Your task to perform on an android device: Show the shopping cart on newegg. Search for "logitech g903" on newegg, select the first entry, and add it to the cart. Image 0: 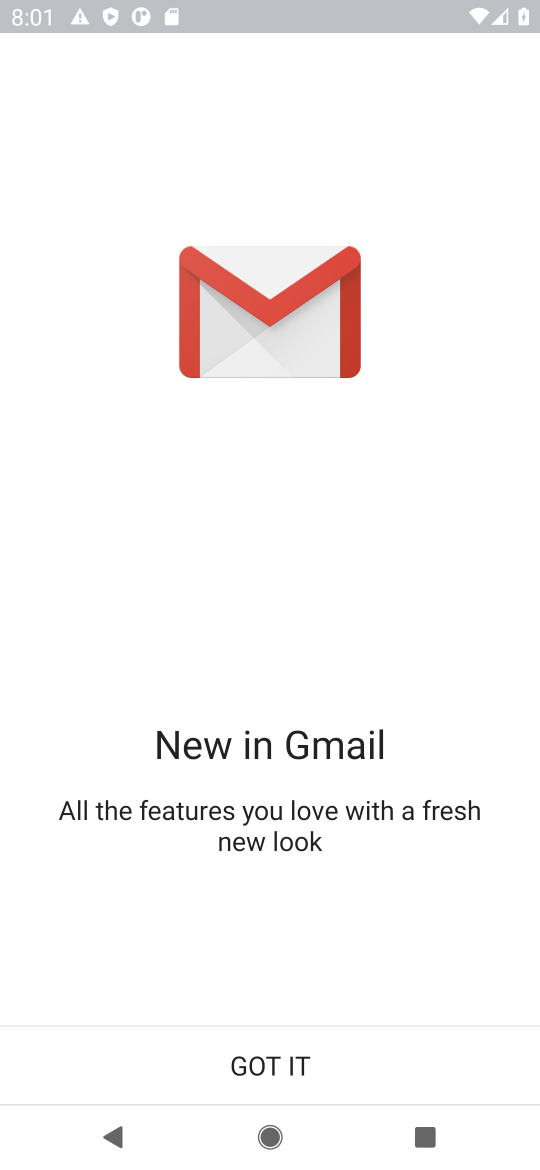
Step 0: press home button
Your task to perform on an android device: Show the shopping cart on newegg. Search for "logitech g903" on newegg, select the first entry, and add it to the cart. Image 1: 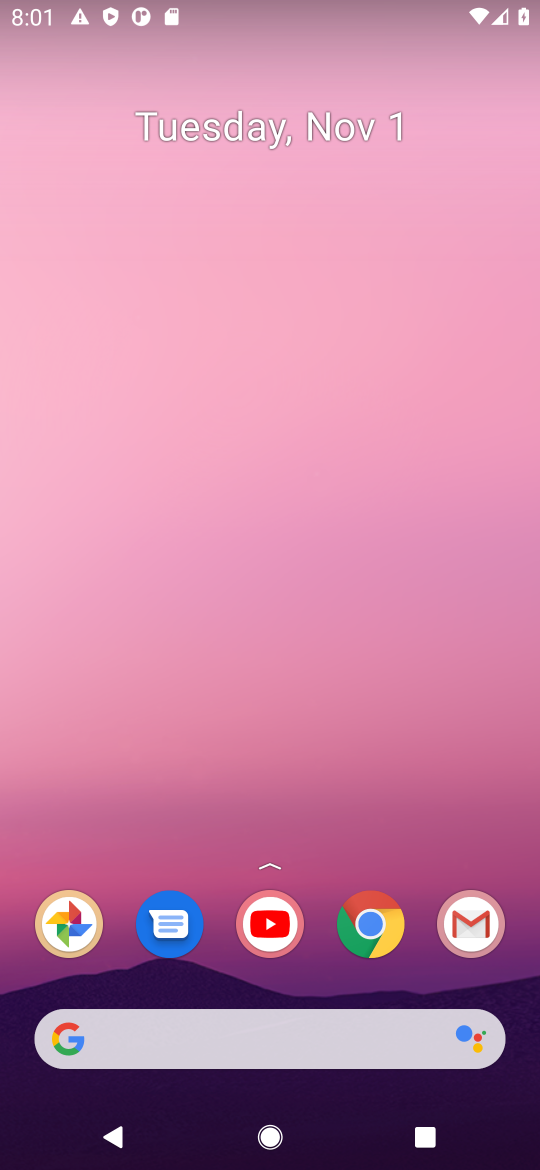
Step 1: click (109, 1036)
Your task to perform on an android device: Show the shopping cart on newegg. Search for "logitech g903" on newegg, select the first entry, and add it to the cart. Image 2: 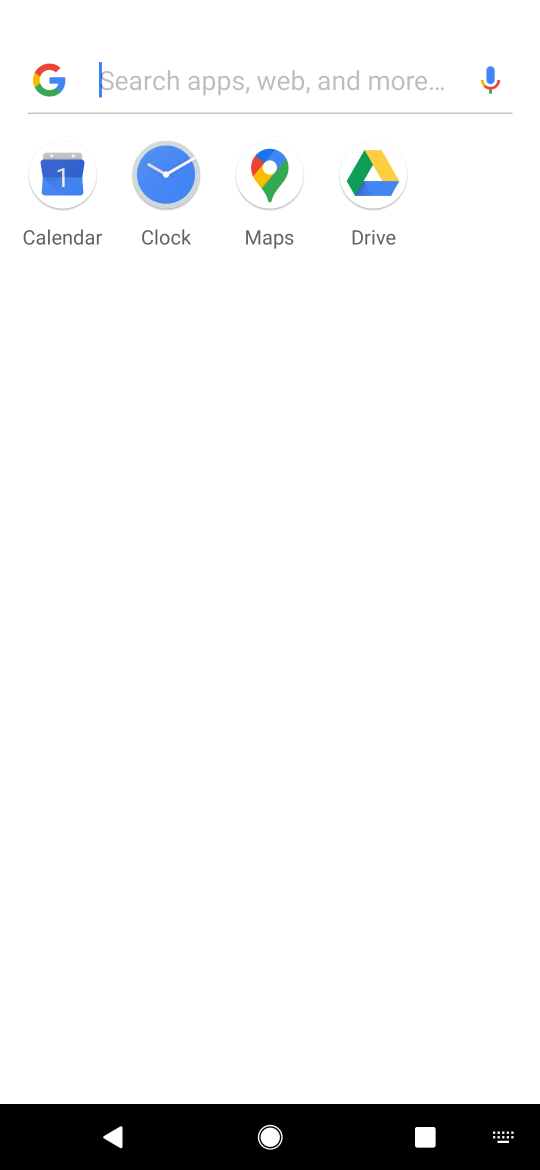
Step 2: type "newegg"
Your task to perform on an android device: Show the shopping cart on newegg. Search for "logitech g903" on newegg, select the first entry, and add it to the cart. Image 3: 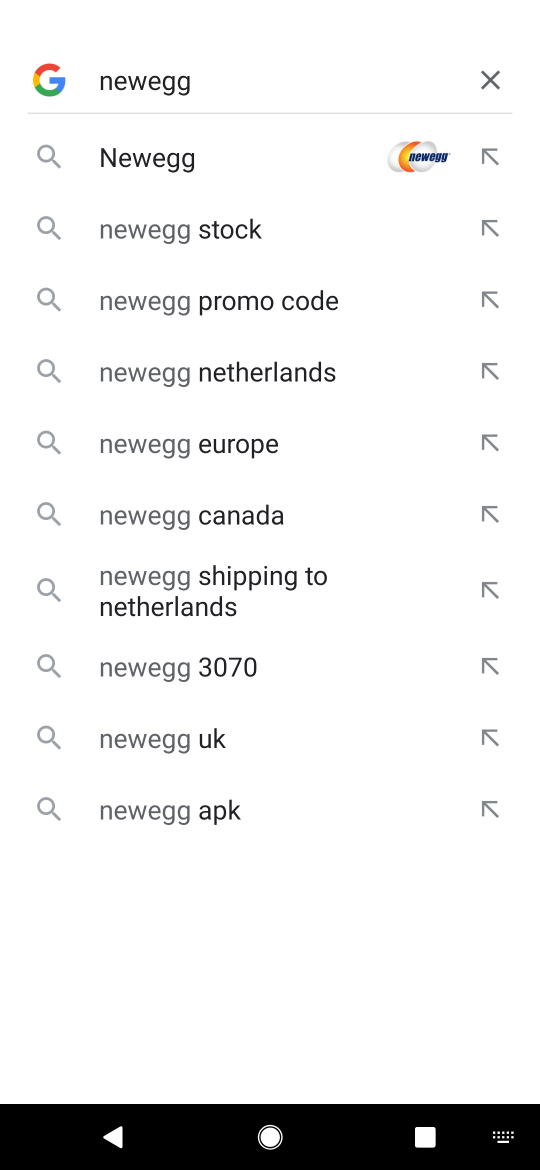
Step 3: press enter
Your task to perform on an android device: Show the shopping cart on newegg. Search for "logitech g903" on newegg, select the first entry, and add it to the cart. Image 4: 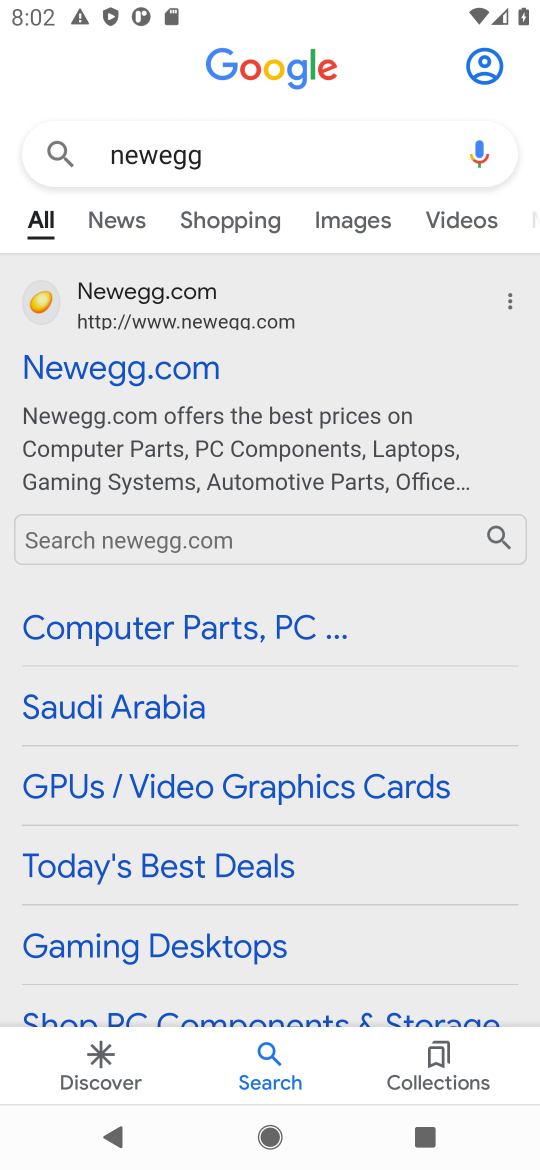
Step 4: click (115, 363)
Your task to perform on an android device: Show the shopping cart on newegg. Search for "logitech g903" on newegg, select the first entry, and add it to the cart. Image 5: 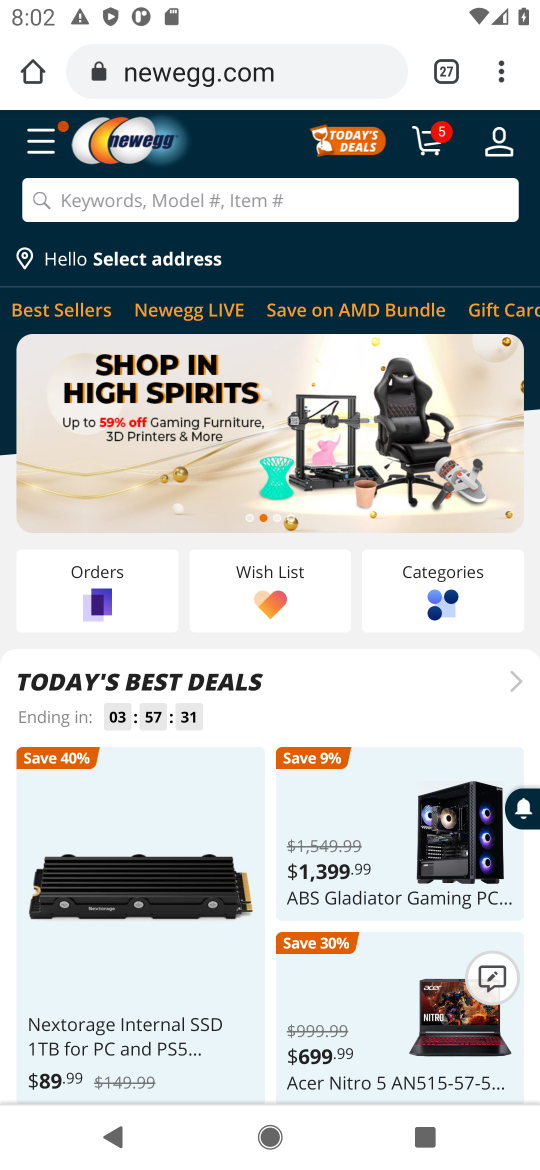
Step 5: click (435, 134)
Your task to perform on an android device: Show the shopping cart on newegg. Search for "logitech g903" on newegg, select the first entry, and add it to the cart. Image 6: 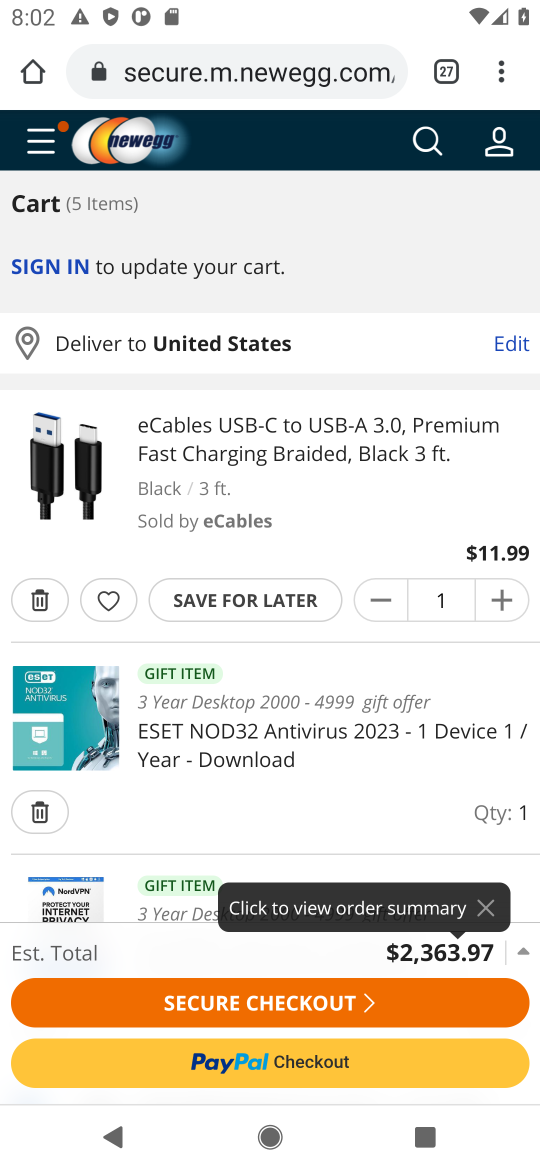
Step 6: click (427, 138)
Your task to perform on an android device: Show the shopping cart on newegg. Search for "logitech g903" on newegg, select the first entry, and add it to the cart. Image 7: 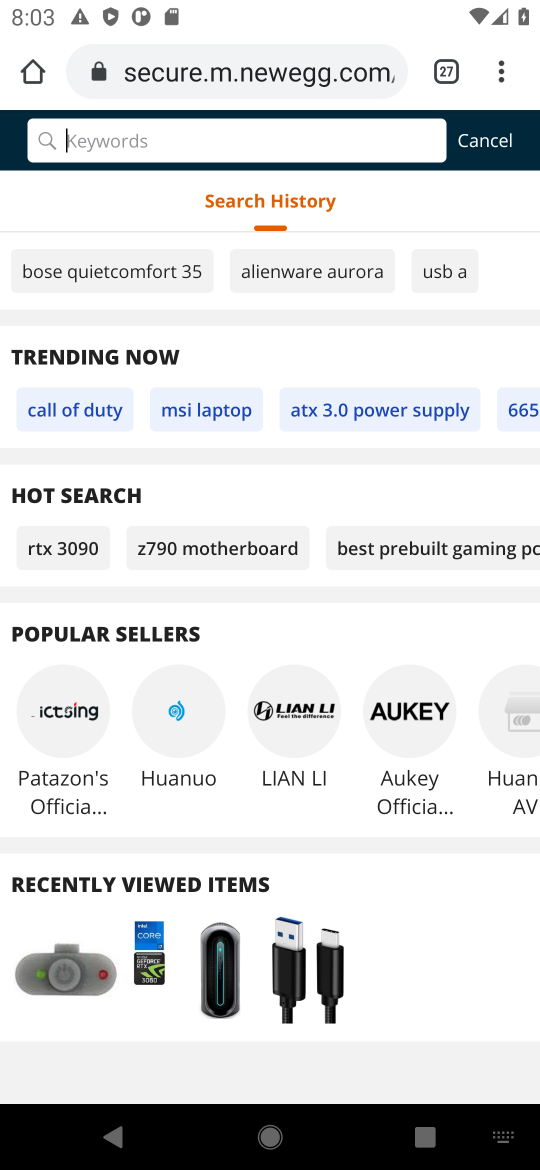
Step 7: type "logitech g903"
Your task to perform on an android device: Show the shopping cart on newegg. Search for "logitech g903" on newegg, select the first entry, and add it to the cart. Image 8: 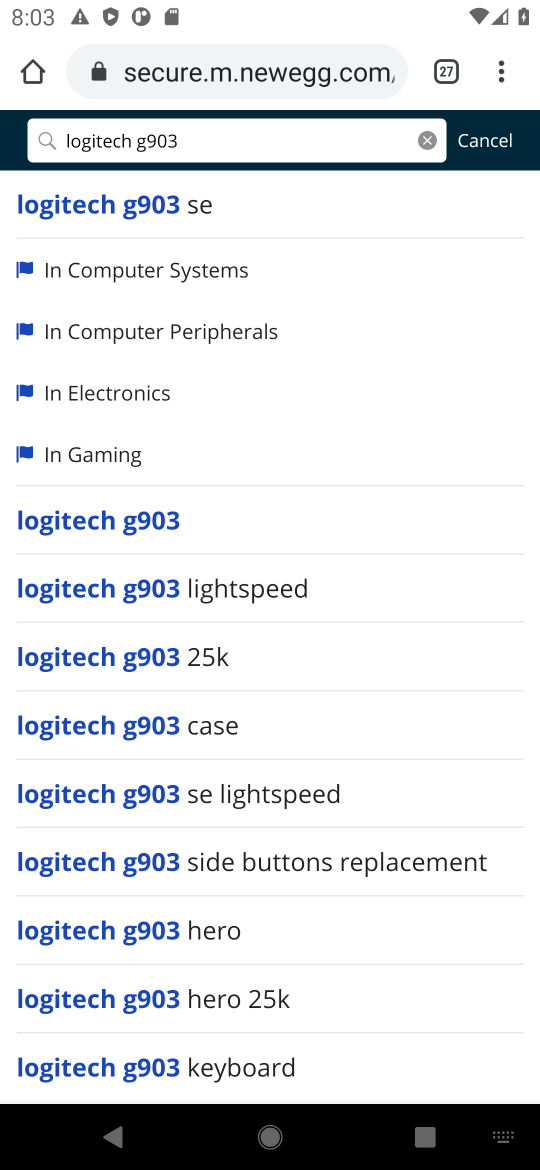
Step 8: press enter
Your task to perform on an android device: Show the shopping cart on newegg. Search for "logitech g903" on newegg, select the first entry, and add it to the cart. Image 9: 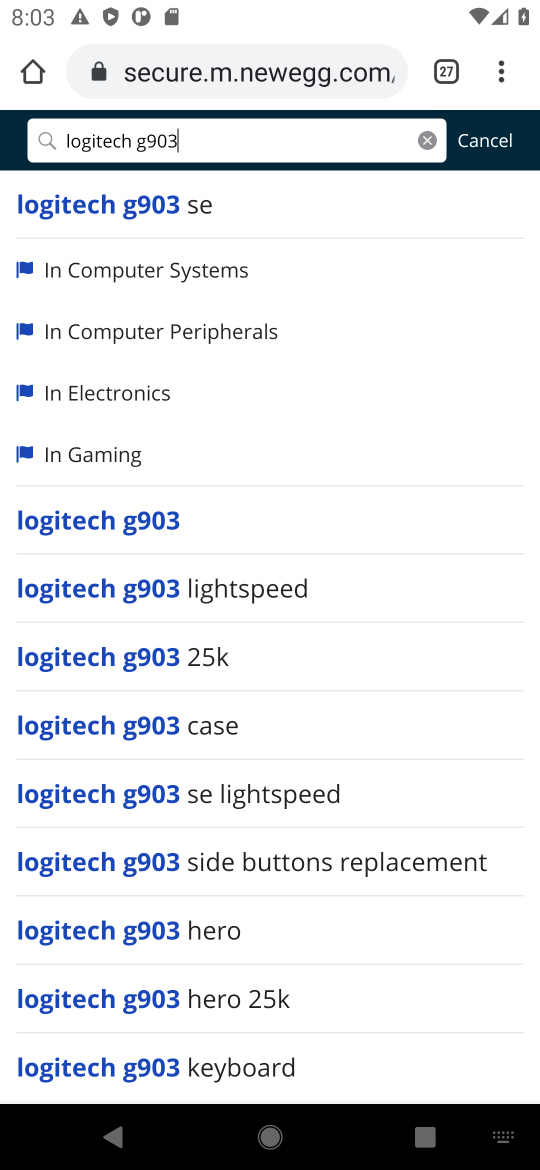
Step 9: click (199, 519)
Your task to perform on an android device: Show the shopping cart on newegg. Search for "logitech g903" on newegg, select the first entry, and add it to the cart. Image 10: 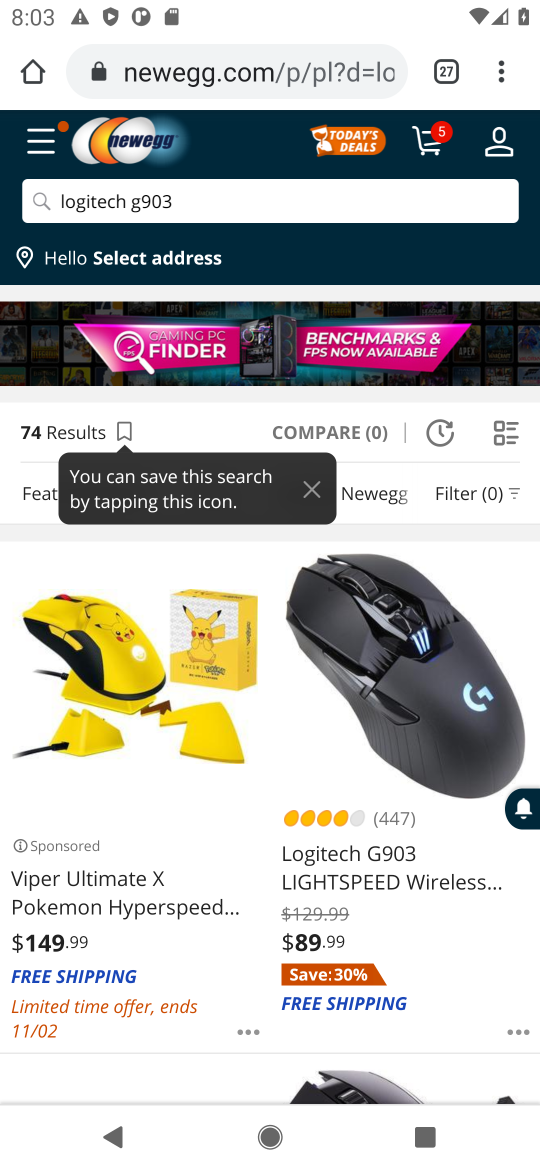
Step 10: click (383, 860)
Your task to perform on an android device: Show the shopping cart on newegg. Search for "logitech g903" on newegg, select the first entry, and add it to the cart. Image 11: 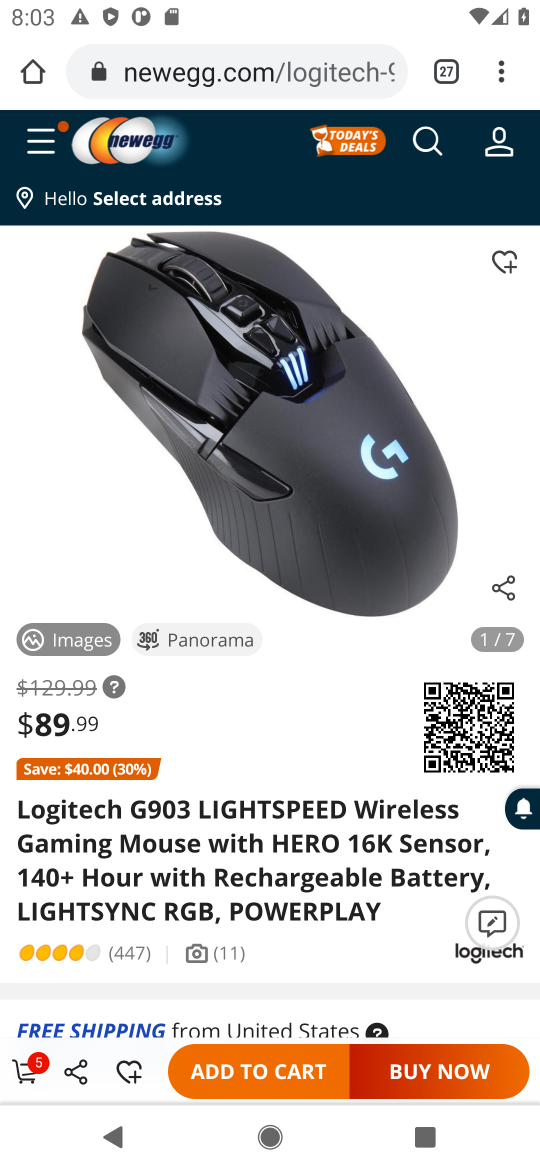
Step 11: click (242, 1065)
Your task to perform on an android device: Show the shopping cart on newegg. Search for "logitech g903" on newegg, select the first entry, and add it to the cart. Image 12: 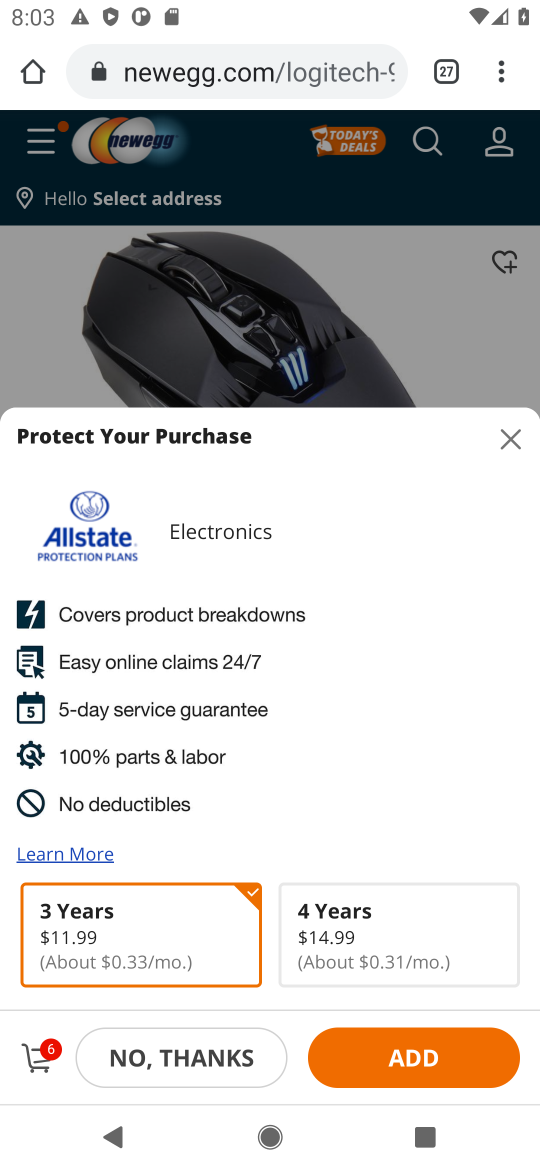
Step 12: click (429, 1056)
Your task to perform on an android device: Show the shopping cart on newegg. Search for "logitech g903" on newegg, select the first entry, and add it to the cart. Image 13: 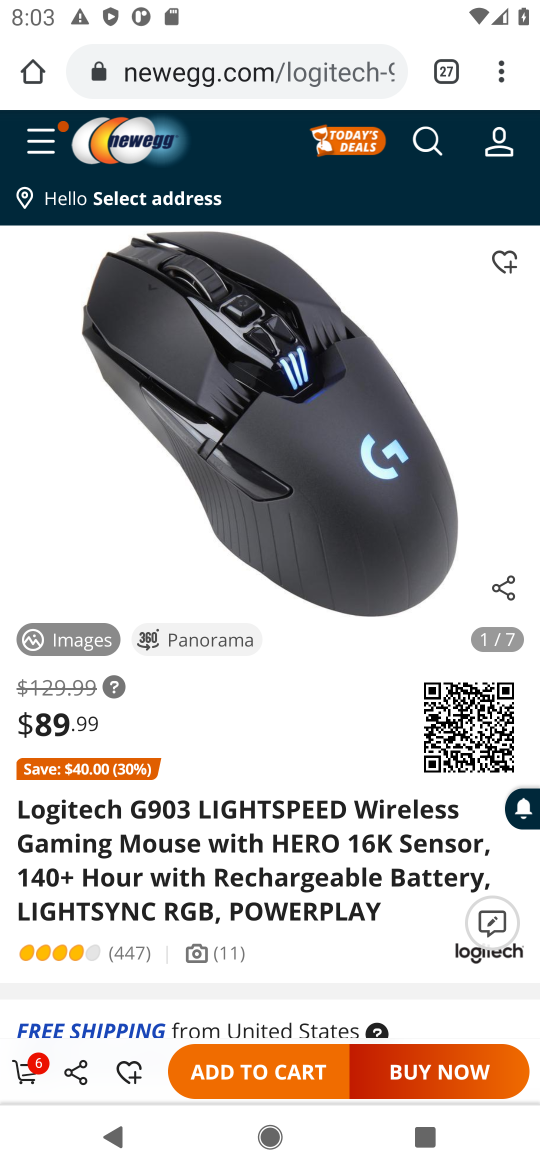
Step 13: task complete